Your task to perform on an android device: see creations saved in the google photos Image 0: 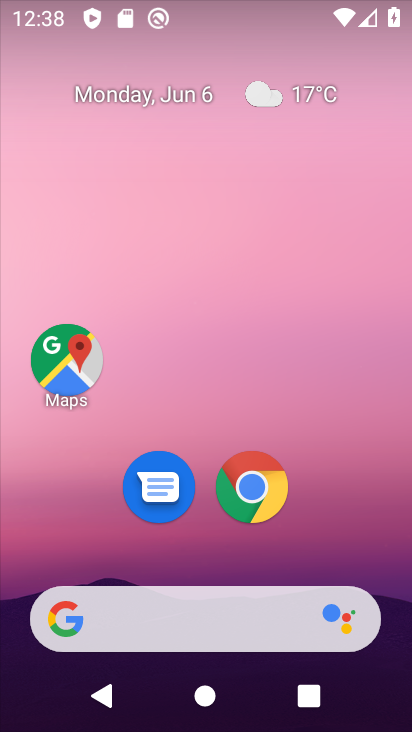
Step 0: drag from (203, 563) to (258, 48)
Your task to perform on an android device: see creations saved in the google photos Image 1: 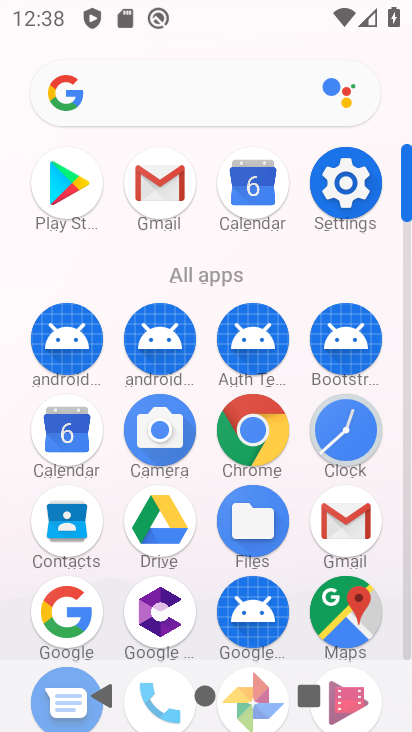
Step 1: drag from (204, 634) to (269, 162)
Your task to perform on an android device: see creations saved in the google photos Image 2: 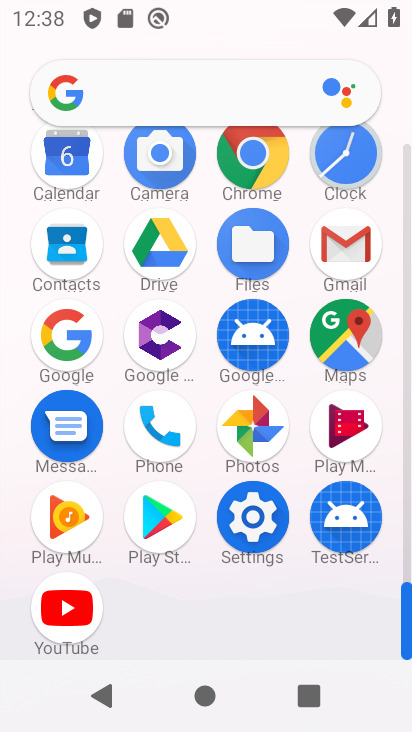
Step 2: click (261, 439)
Your task to perform on an android device: see creations saved in the google photos Image 3: 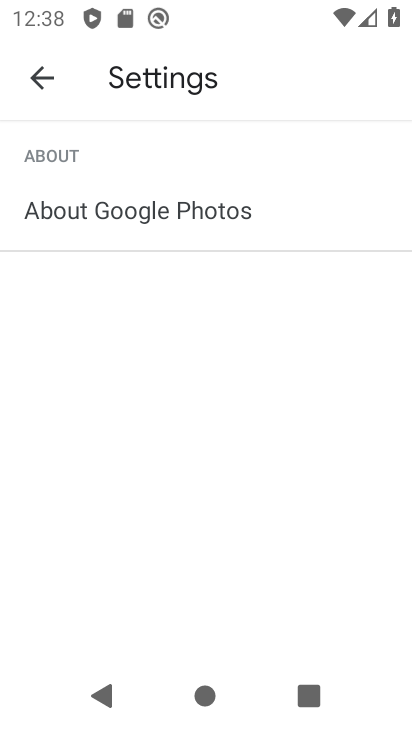
Step 3: click (34, 71)
Your task to perform on an android device: see creations saved in the google photos Image 4: 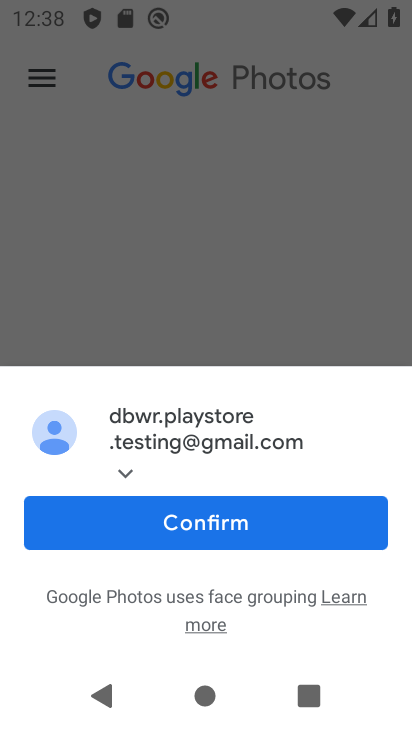
Step 4: click (52, 65)
Your task to perform on an android device: see creations saved in the google photos Image 5: 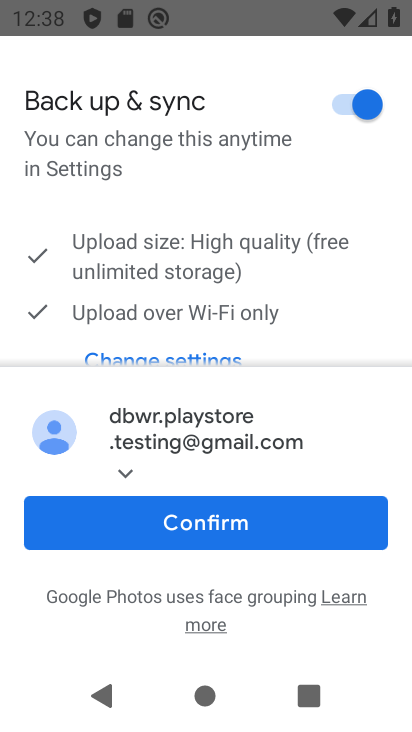
Step 5: click (223, 529)
Your task to perform on an android device: see creations saved in the google photos Image 6: 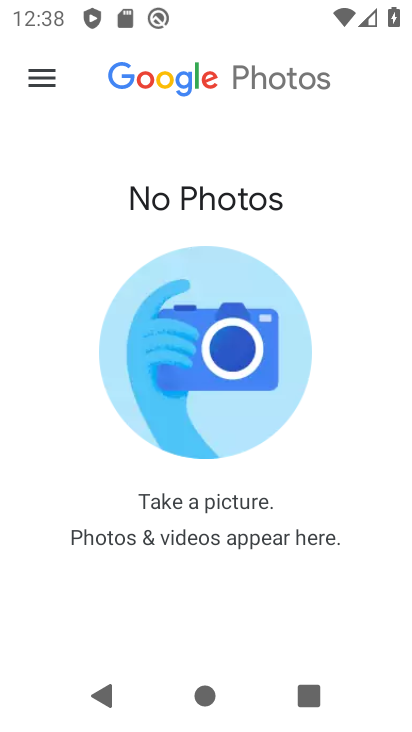
Step 6: click (49, 57)
Your task to perform on an android device: see creations saved in the google photos Image 7: 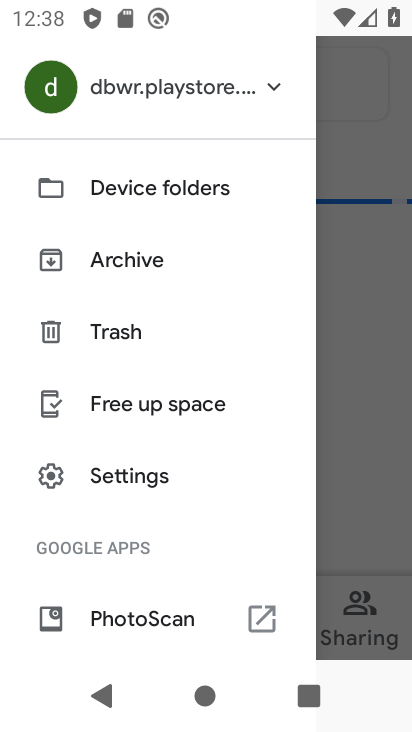
Step 7: click (125, 262)
Your task to perform on an android device: see creations saved in the google photos Image 8: 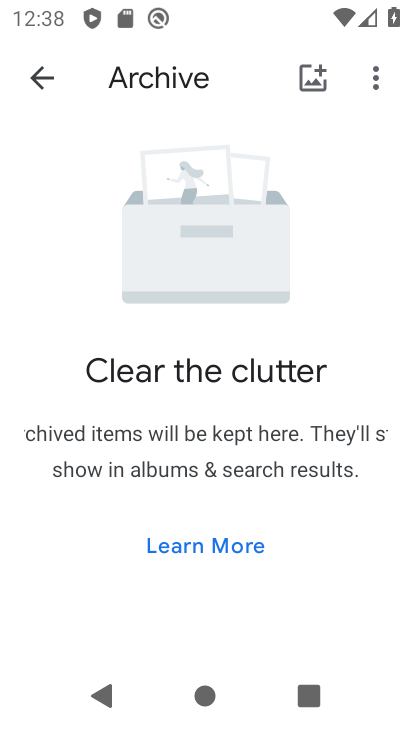
Step 8: task complete